Your task to perform on an android device: What's the weather? Image 0: 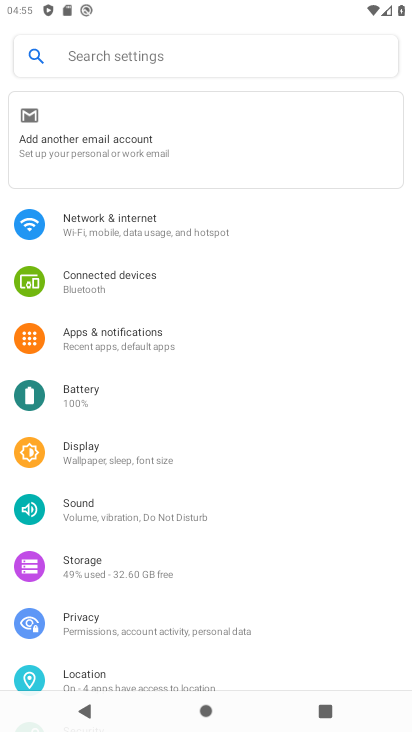
Step 0: press home button
Your task to perform on an android device: What's the weather? Image 1: 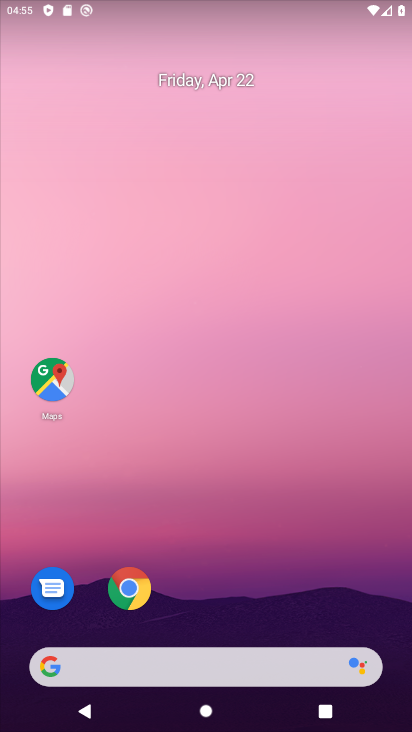
Step 1: click (179, 658)
Your task to perform on an android device: What's the weather? Image 2: 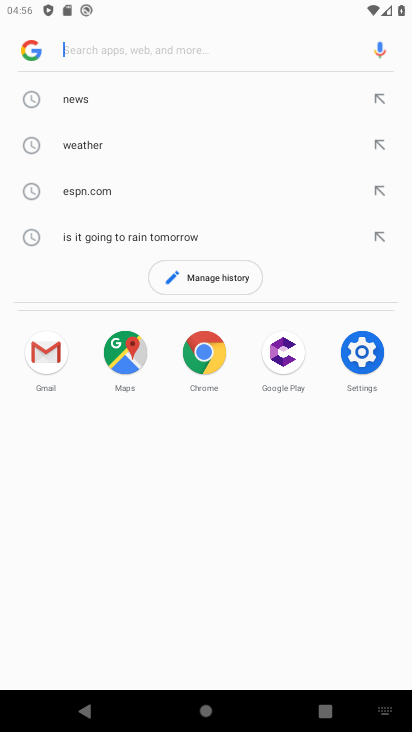
Step 2: click (137, 146)
Your task to perform on an android device: What's the weather? Image 3: 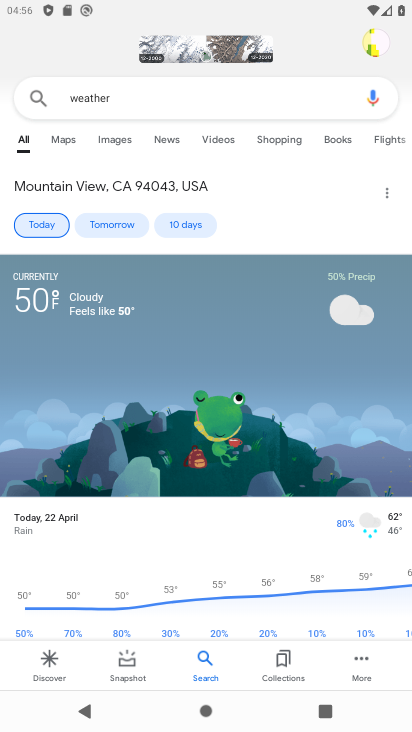
Step 3: task complete